Your task to perform on an android device: What's the weather going to be this weekend? Image 0: 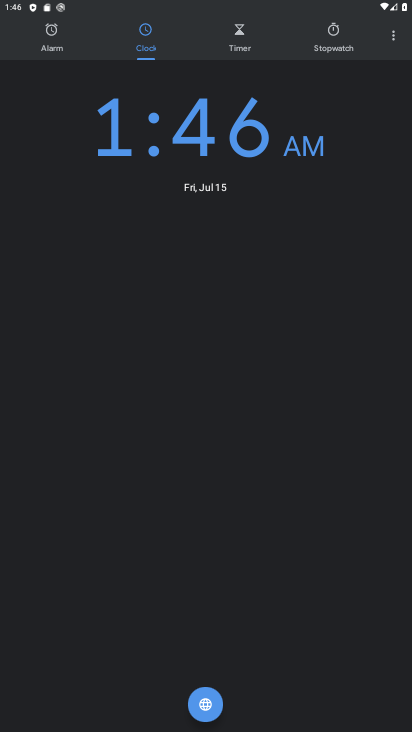
Step 0: press home button
Your task to perform on an android device: What's the weather going to be this weekend? Image 1: 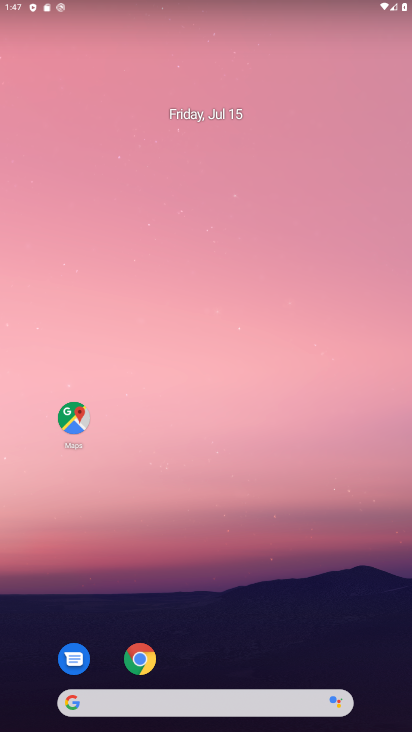
Step 1: drag from (209, 515) to (251, 228)
Your task to perform on an android device: What's the weather going to be this weekend? Image 2: 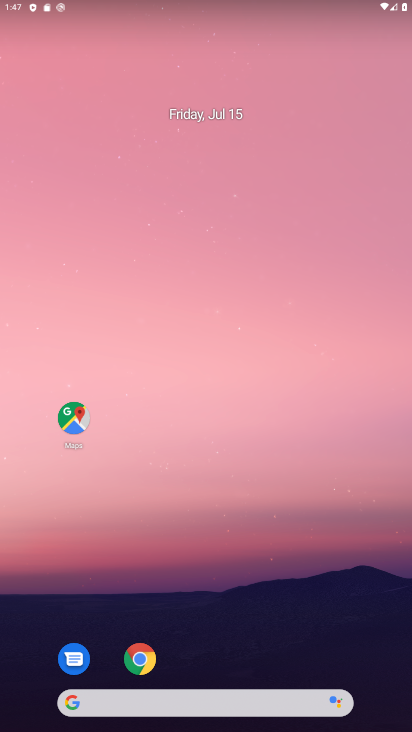
Step 2: click (215, 266)
Your task to perform on an android device: What's the weather going to be this weekend? Image 3: 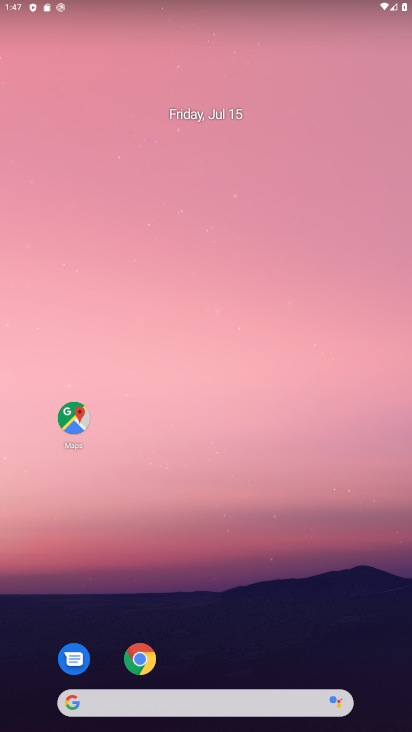
Step 3: drag from (194, 683) to (164, 284)
Your task to perform on an android device: What's the weather going to be this weekend? Image 4: 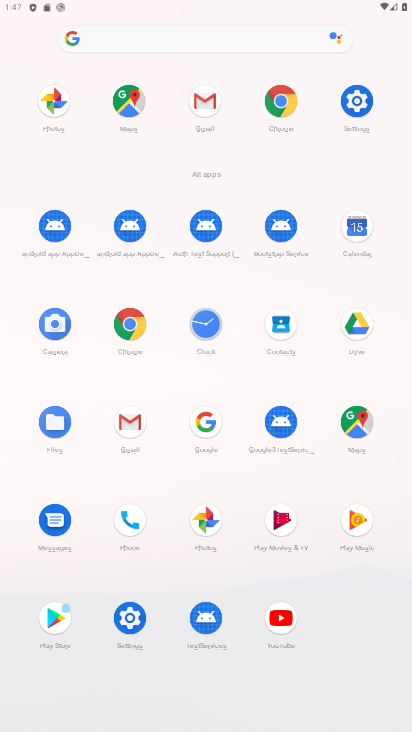
Step 4: click (205, 417)
Your task to perform on an android device: What's the weather going to be this weekend? Image 5: 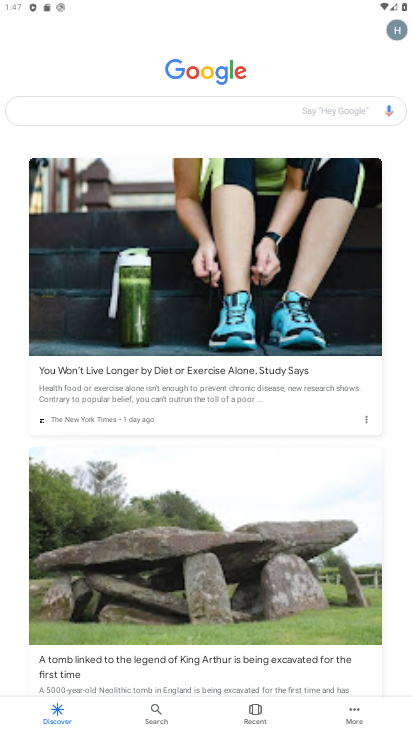
Step 5: click (170, 106)
Your task to perform on an android device: What's the weather going to be this weekend? Image 6: 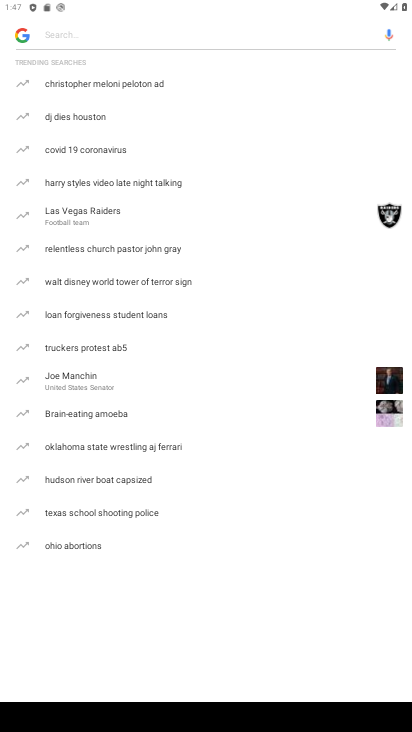
Step 6: type "What's the weather going to be this weekend?"
Your task to perform on an android device: What's the weather going to be this weekend? Image 7: 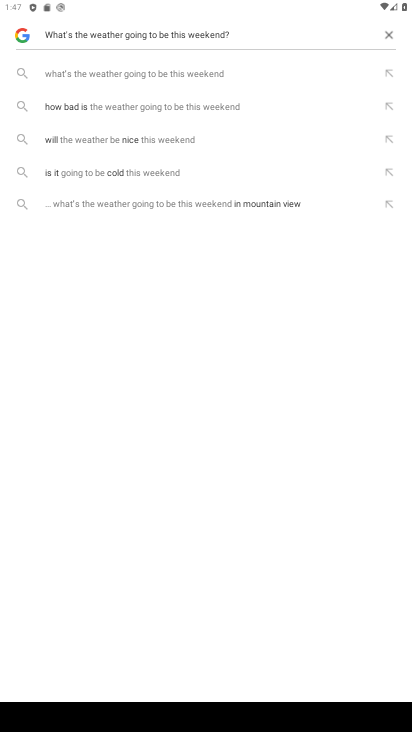
Step 7: click (78, 81)
Your task to perform on an android device: What's the weather going to be this weekend? Image 8: 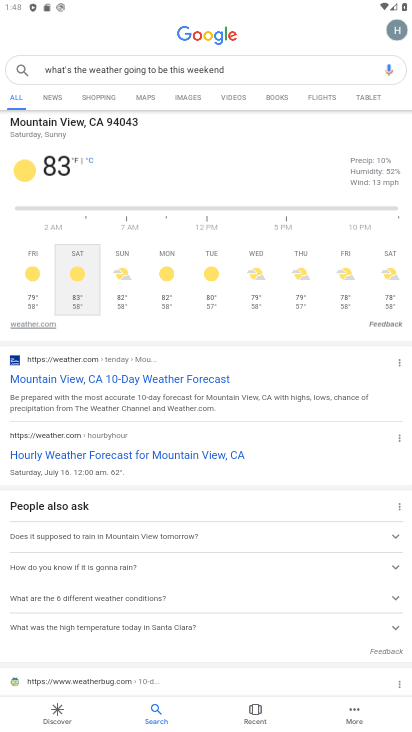
Step 8: task complete